Your task to perform on an android device: check out phone information Image 0: 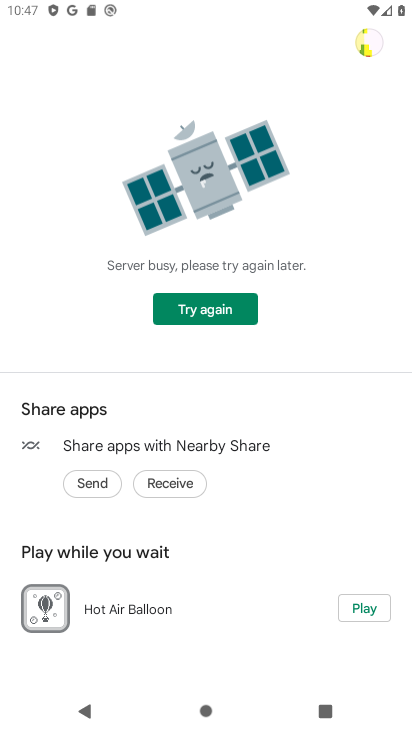
Step 0: press home button
Your task to perform on an android device: check out phone information Image 1: 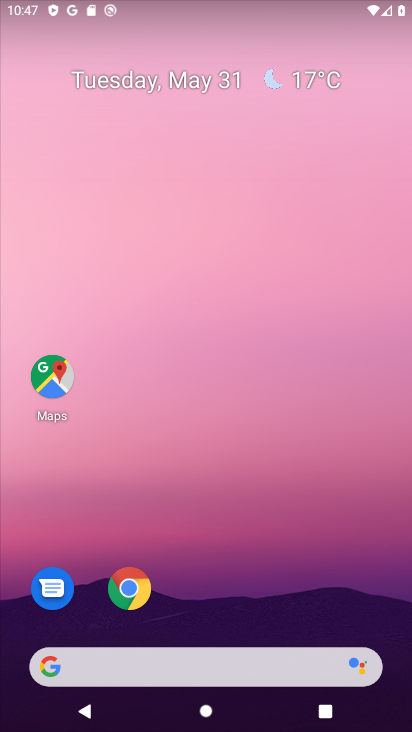
Step 1: drag from (248, 681) to (191, 66)
Your task to perform on an android device: check out phone information Image 2: 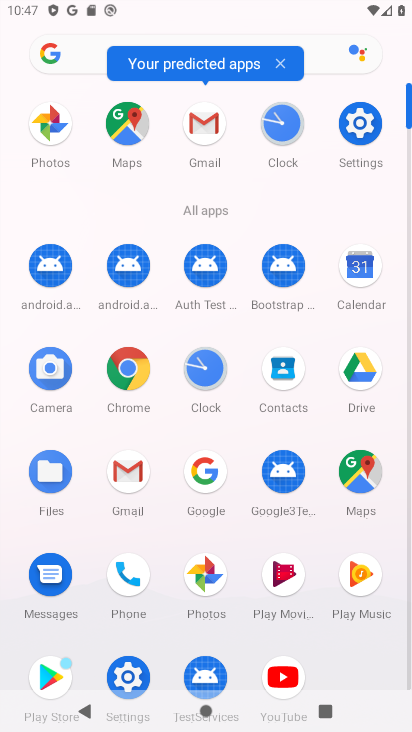
Step 2: drag from (357, 132) to (237, 610)
Your task to perform on an android device: check out phone information Image 3: 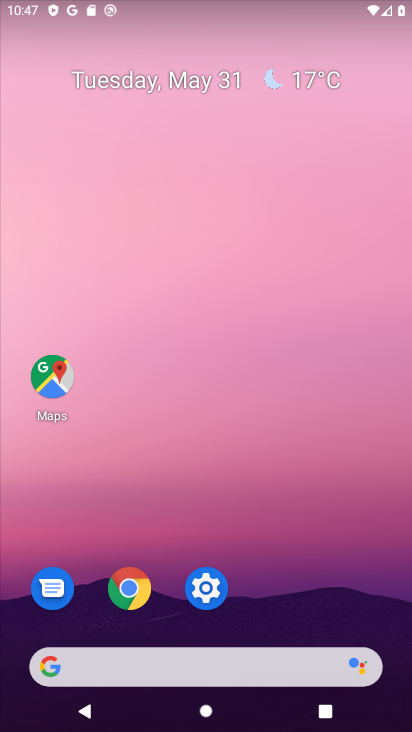
Step 3: click (212, 585)
Your task to perform on an android device: check out phone information Image 4: 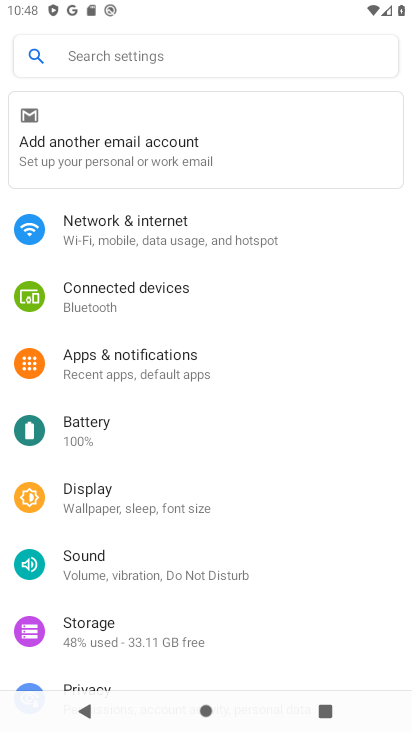
Step 4: click (145, 55)
Your task to perform on an android device: check out phone information Image 5: 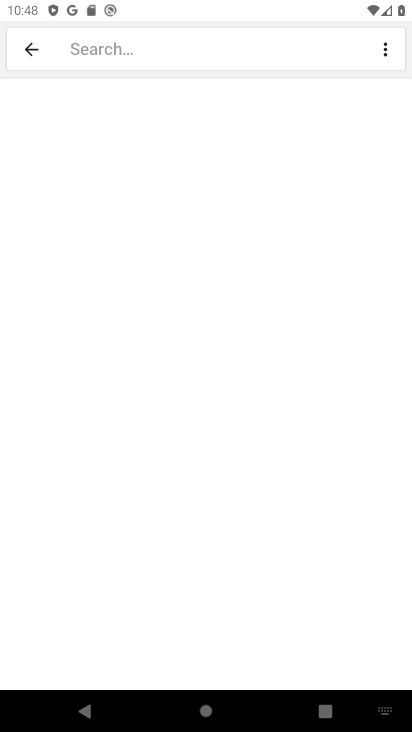
Step 5: drag from (375, 689) to (362, 615)
Your task to perform on an android device: check out phone information Image 6: 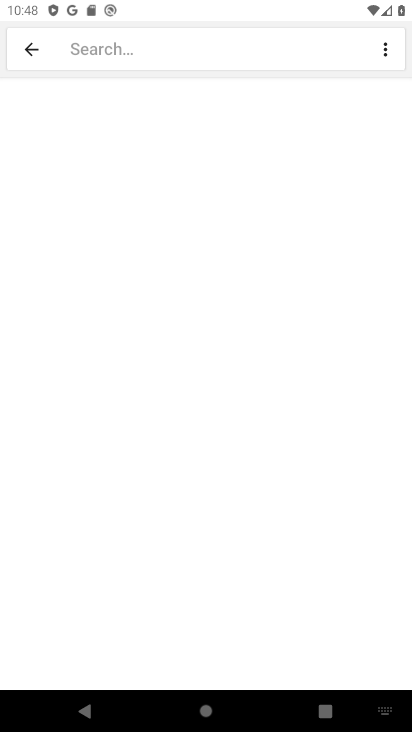
Step 6: click (381, 710)
Your task to perform on an android device: check out phone information Image 7: 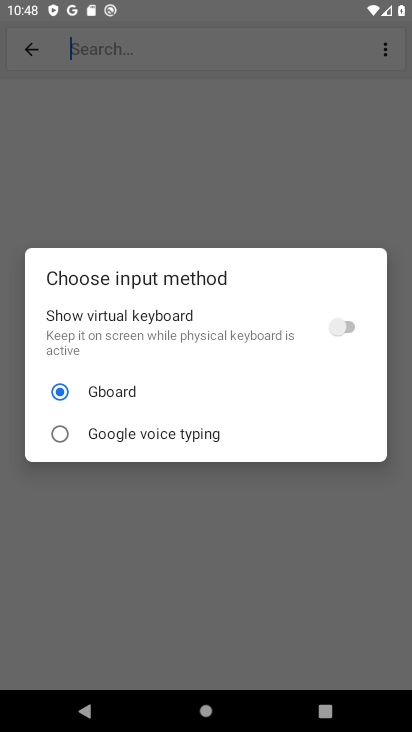
Step 7: click (342, 334)
Your task to perform on an android device: check out phone information Image 8: 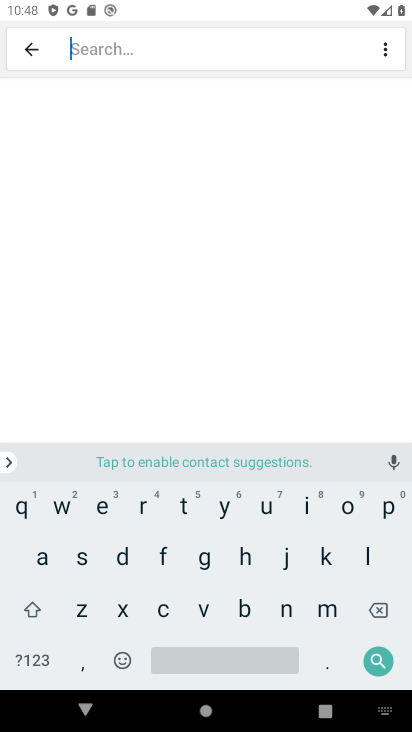
Step 8: click (40, 556)
Your task to perform on an android device: check out phone information Image 9: 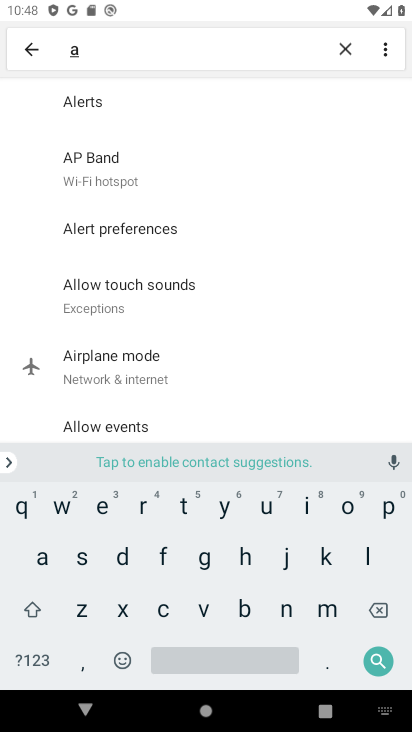
Step 9: click (240, 608)
Your task to perform on an android device: check out phone information Image 10: 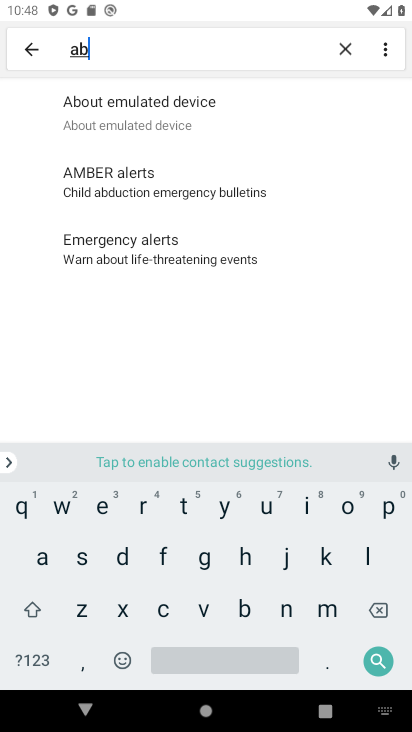
Step 10: click (177, 107)
Your task to perform on an android device: check out phone information Image 11: 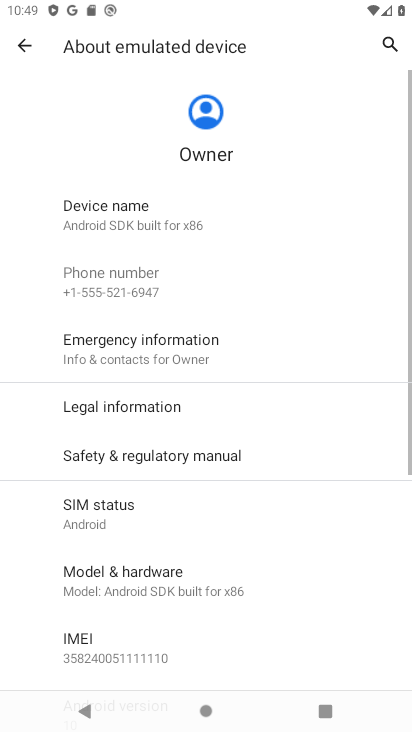
Step 11: task complete